Your task to perform on an android device: set the stopwatch Image 0: 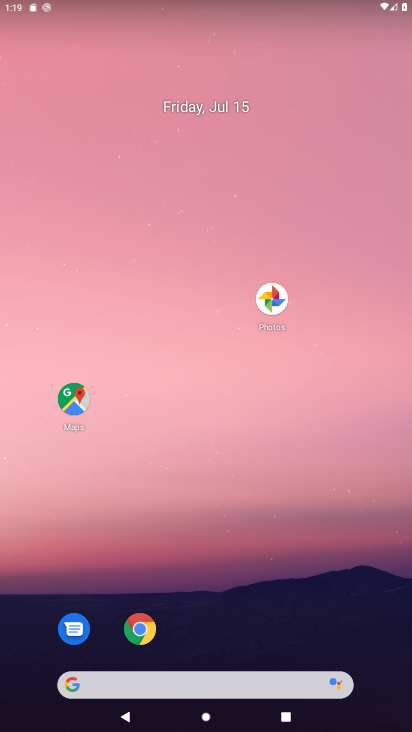
Step 0: drag from (240, 649) to (224, 391)
Your task to perform on an android device: set the stopwatch Image 1: 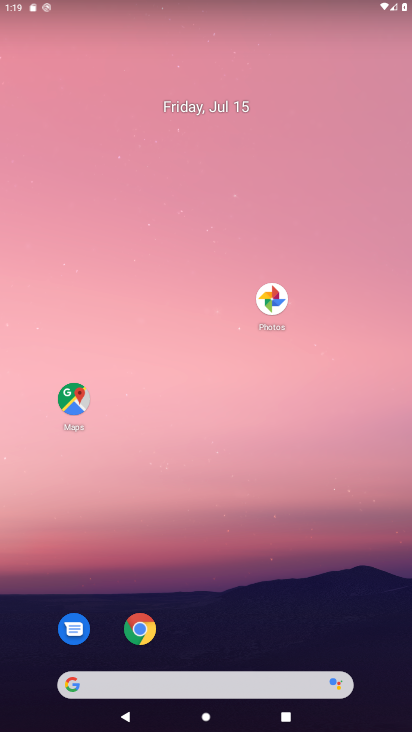
Step 1: drag from (205, 671) to (238, 161)
Your task to perform on an android device: set the stopwatch Image 2: 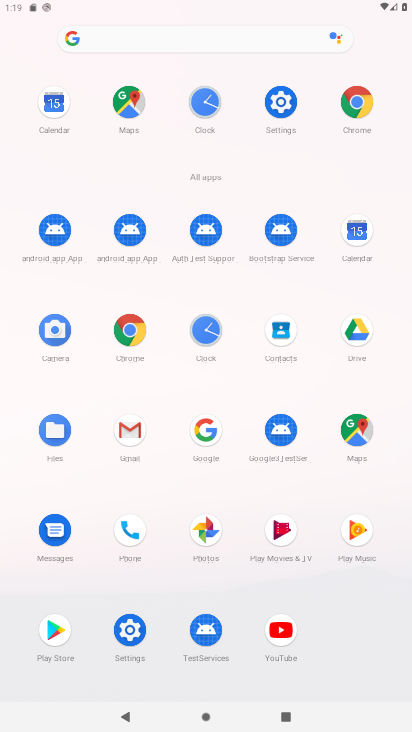
Step 2: click (196, 327)
Your task to perform on an android device: set the stopwatch Image 3: 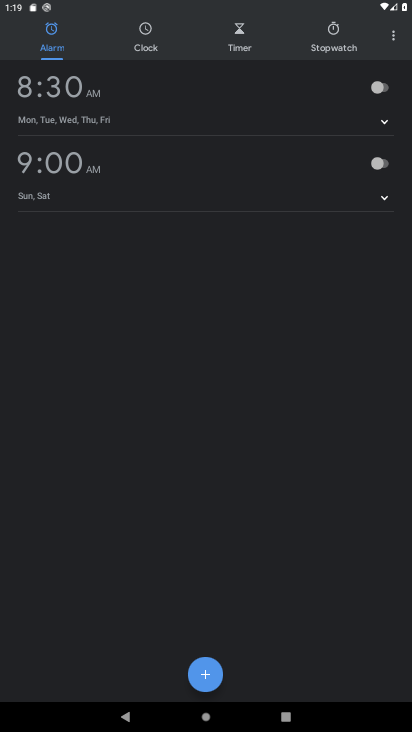
Step 3: click (342, 26)
Your task to perform on an android device: set the stopwatch Image 4: 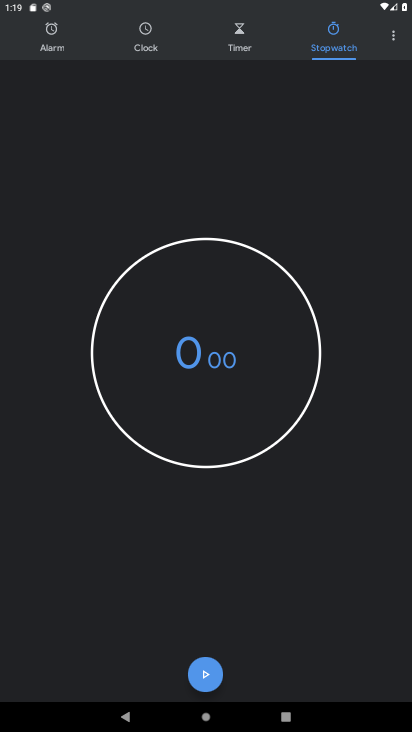
Step 4: task complete